Your task to perform on an android device: set the timer Image 0: 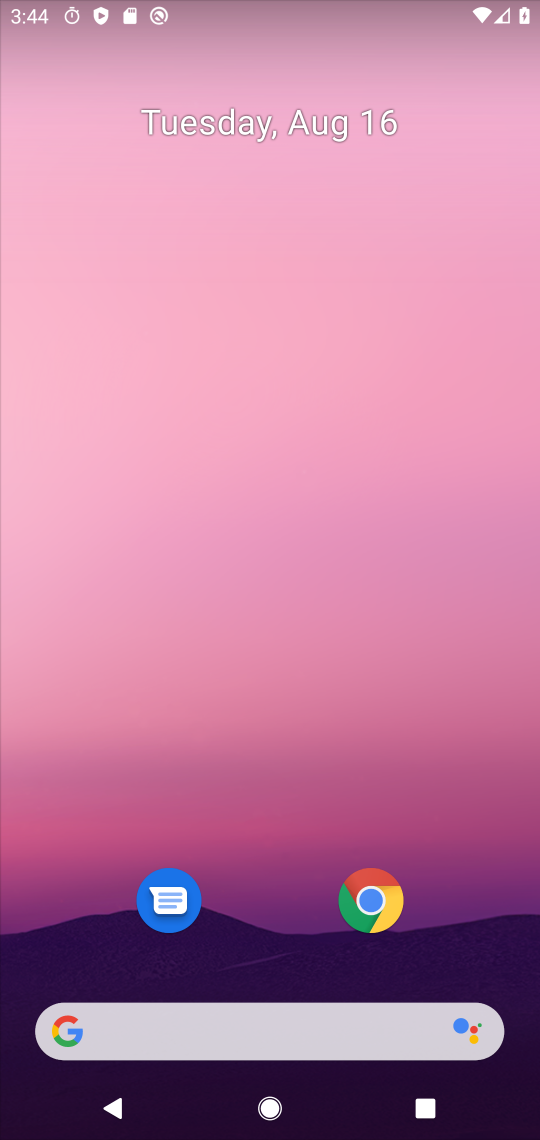
Step 0: click (422, 368)
Your task to perform on an android device: set the timer Image 1: 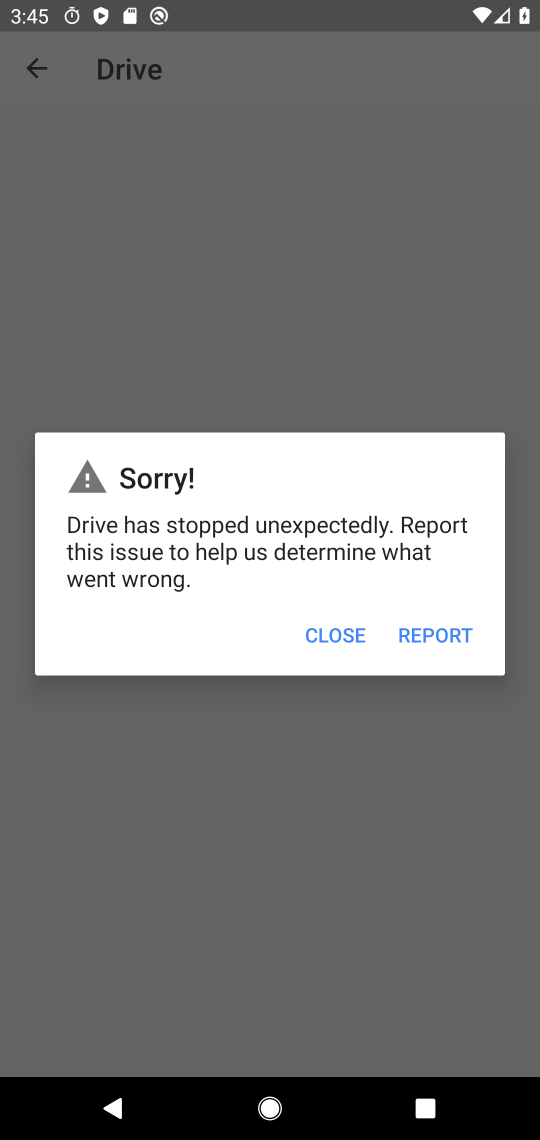
Step 1: press home button
Your task to perform on an android device: set the timer Image 2: 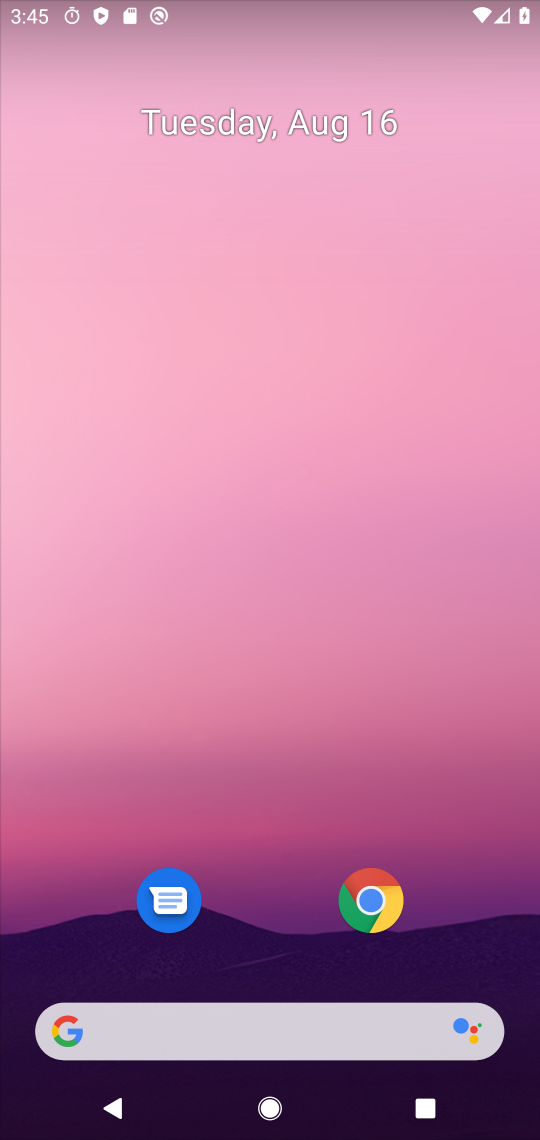
Step 2: drag from (273, 966) to (273, 164)
Your task to perform on an android device: set the timer Image 3: 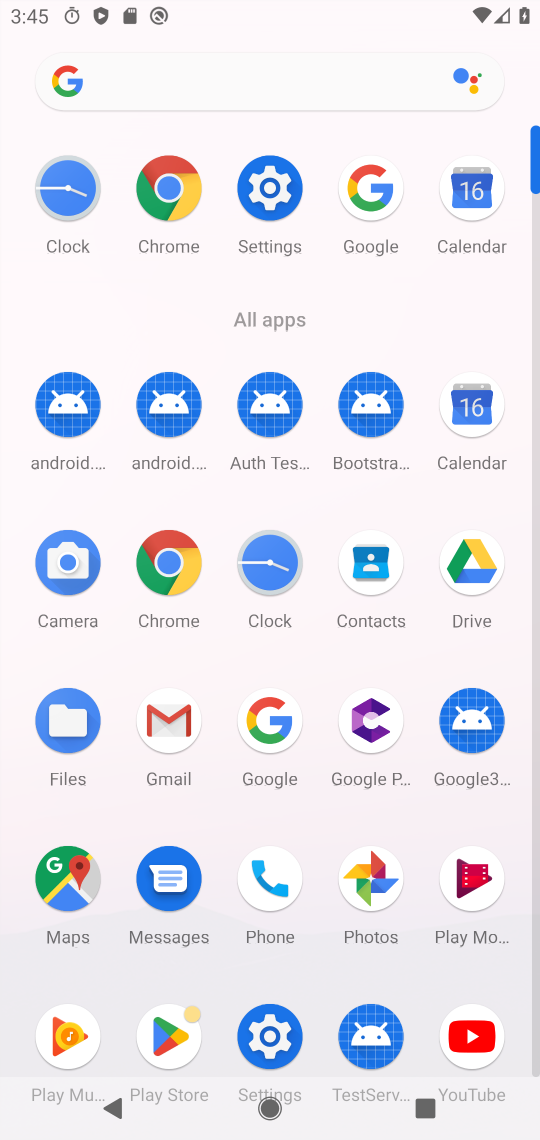
Step 3: click (267, 559)
Your task to perform on an android device: set the timer Image 4: 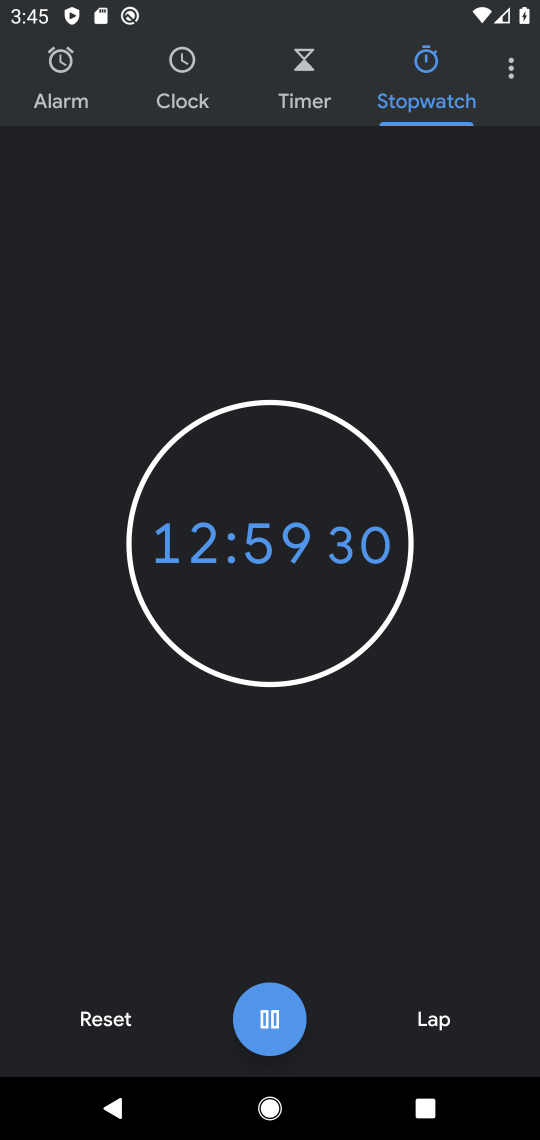
Step 4: click (302, 96)
Your task to perform on an android device: set the timer Image 5: 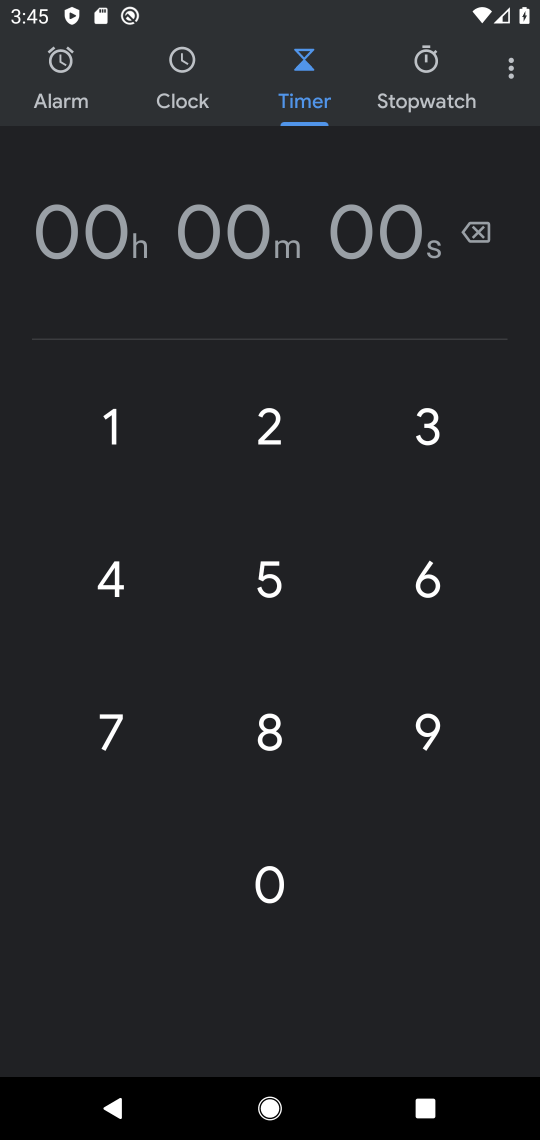
Step 5: click (261, 430)
Your task to perform on an android device: set the timer Image 6: 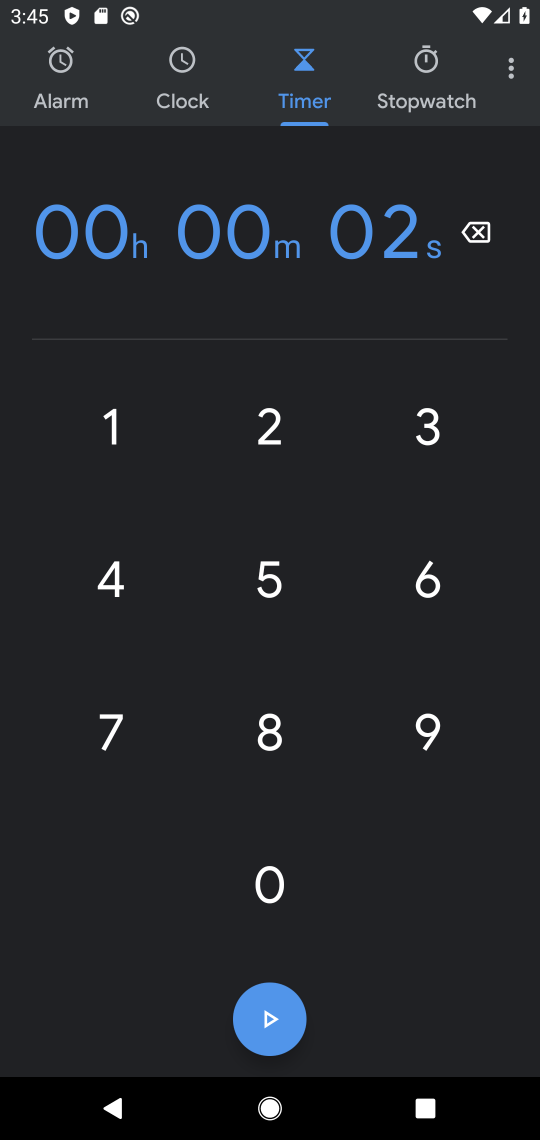
Step 6: click (281, 565)
Your task to perform on an android device: set the timer Image 7: 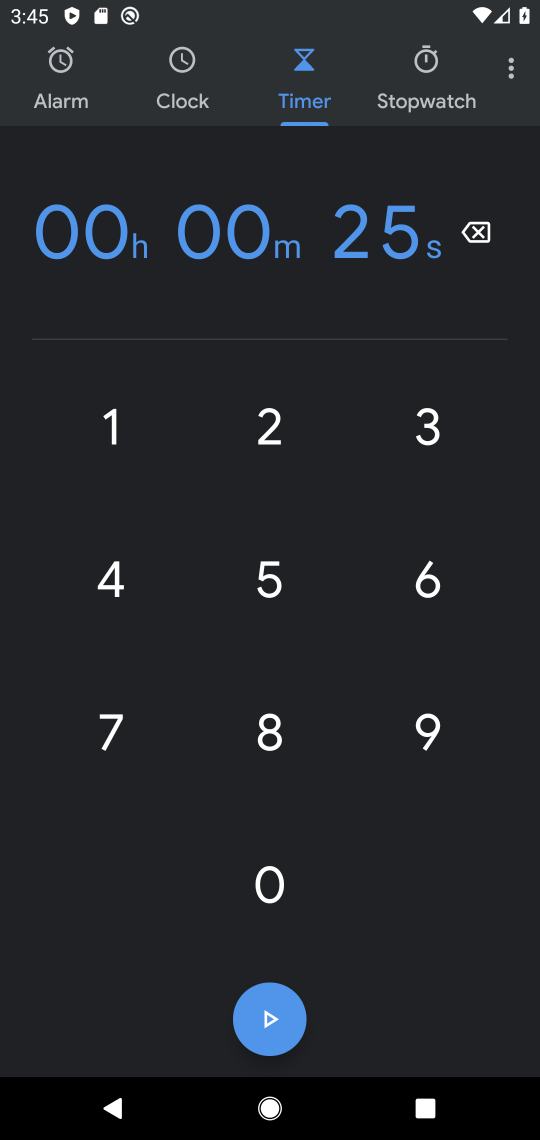
Step 7: click (264, 728)
Your task to perform on an android device: set the timer Image 8: 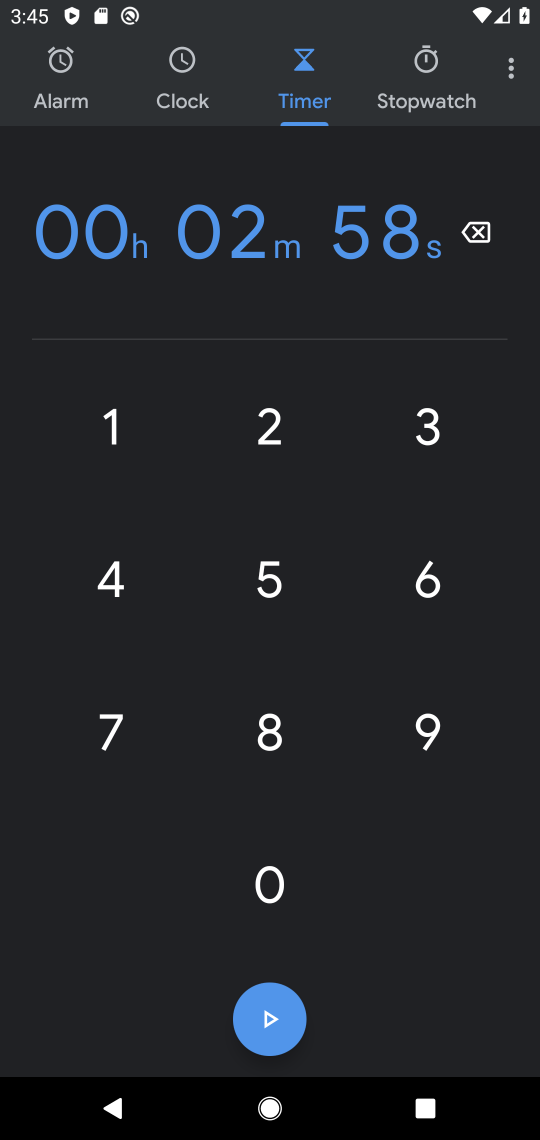
Step 8: click (265, 1019)
Your task to perform on an android device: set the timer Image 9: 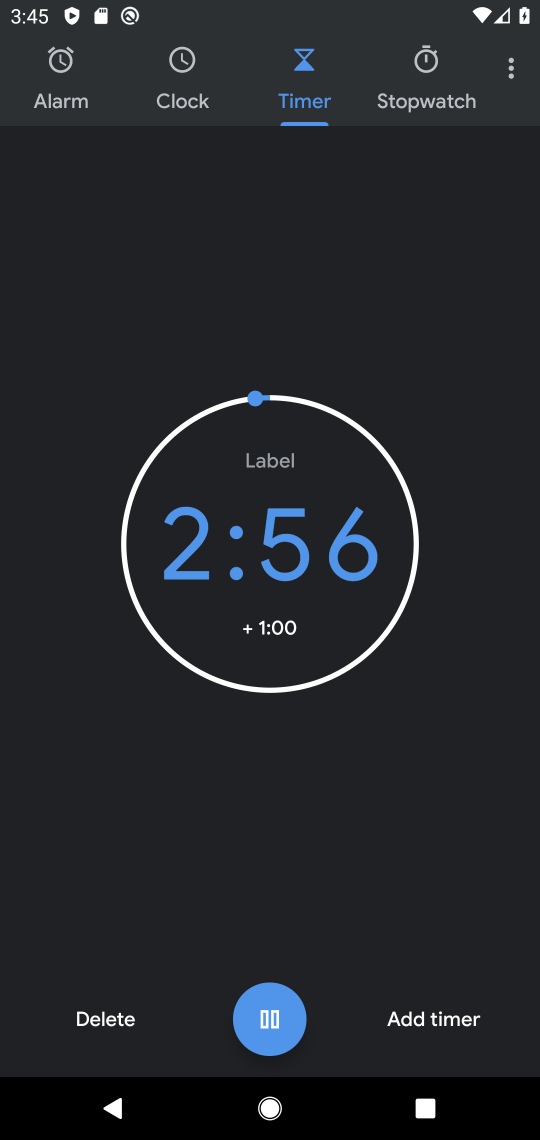
Step 9: task complete